Your task to perform on an android device: open app "The Home Depot" (install if not already installed) Image 0: 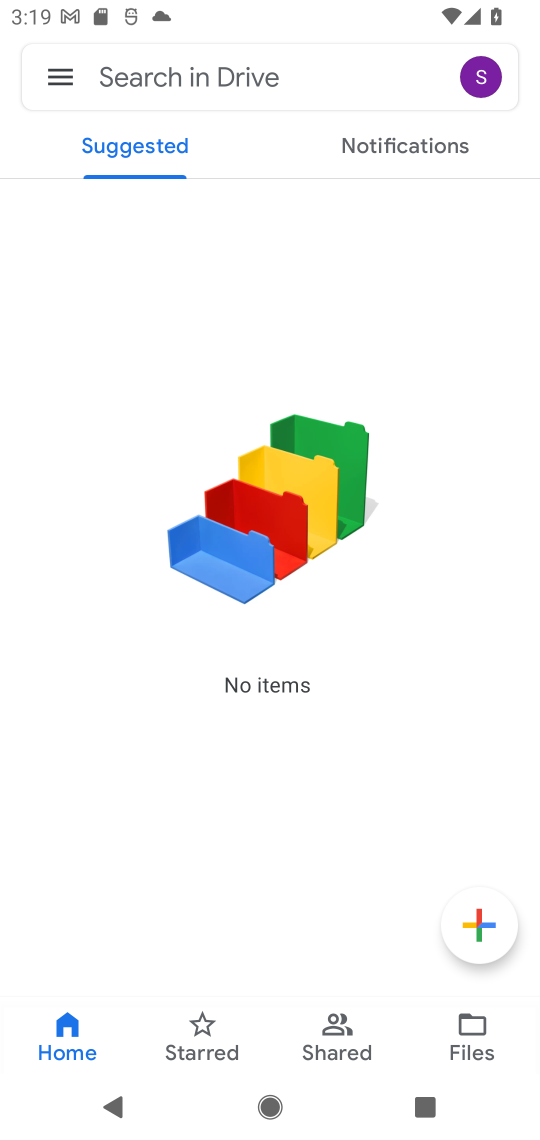
Step 0: press home button
Your task to perform on an android device: open app "The Home Depot" (install if not already installed) Image 1: 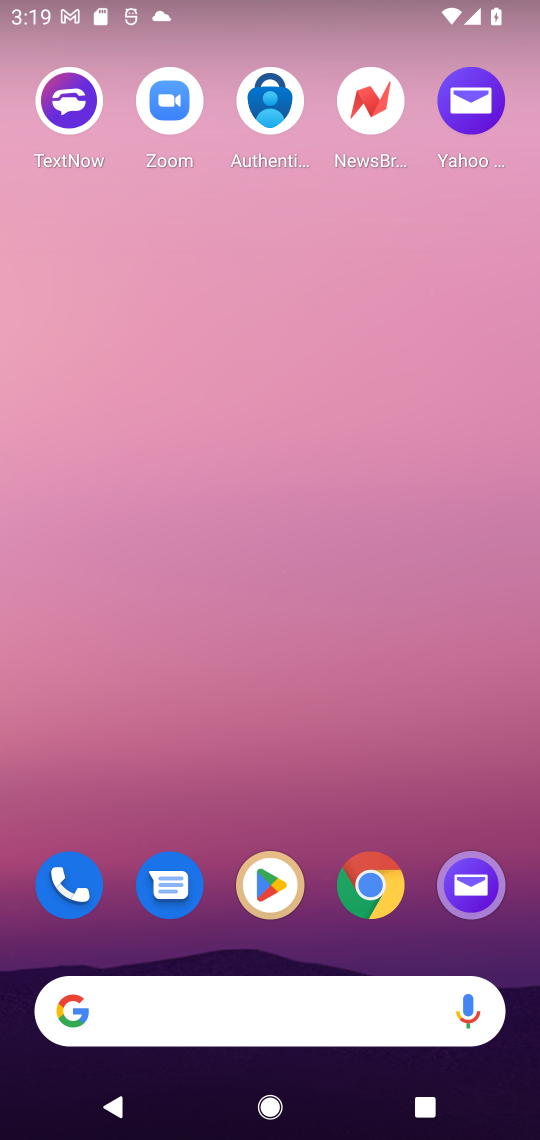
Step 1: click (271, 884)
Your task to perform on an android device: open app "The Home Depot" (install if not already installed) Image 2: 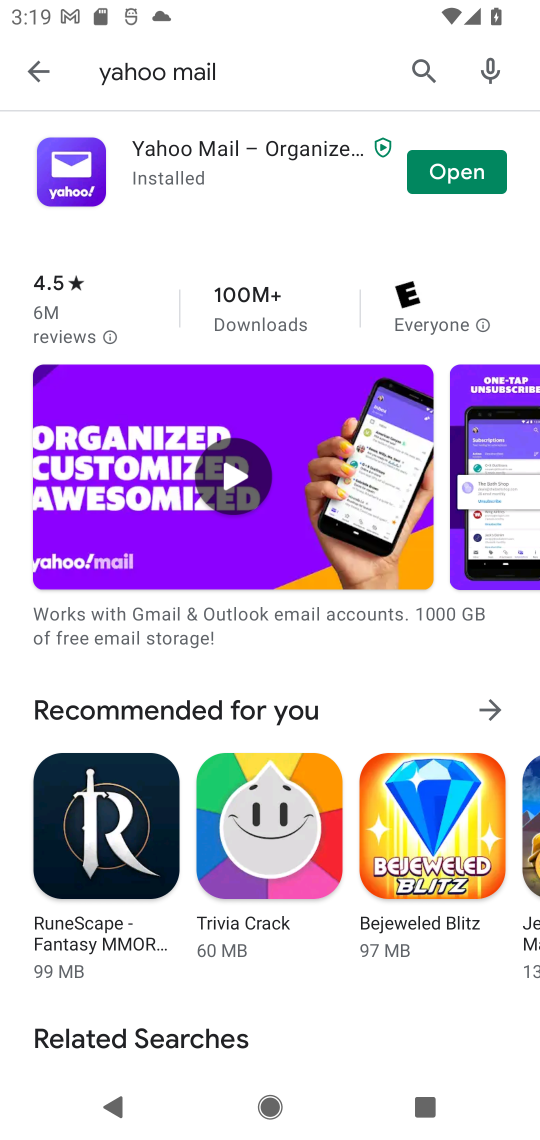
Step 2: click (417, 68)
Your task to perform on an android device: open app "The Home Depot" (install if not already installed) Image 3: 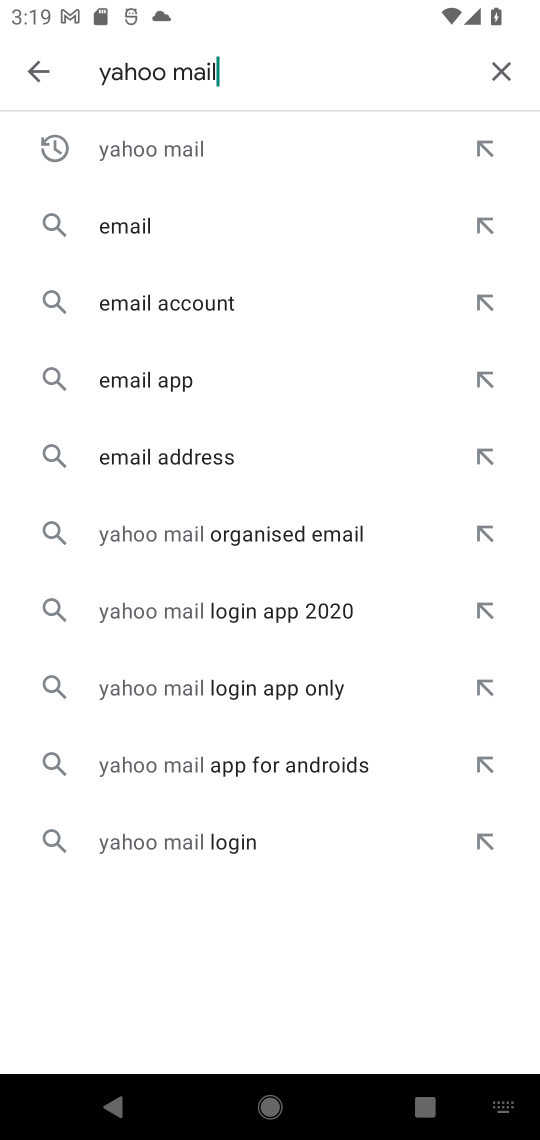
Step 3: click (511, 75)
Your task to perform on an android device: open app "The Home Depot" (install if not already installed) Image 4: 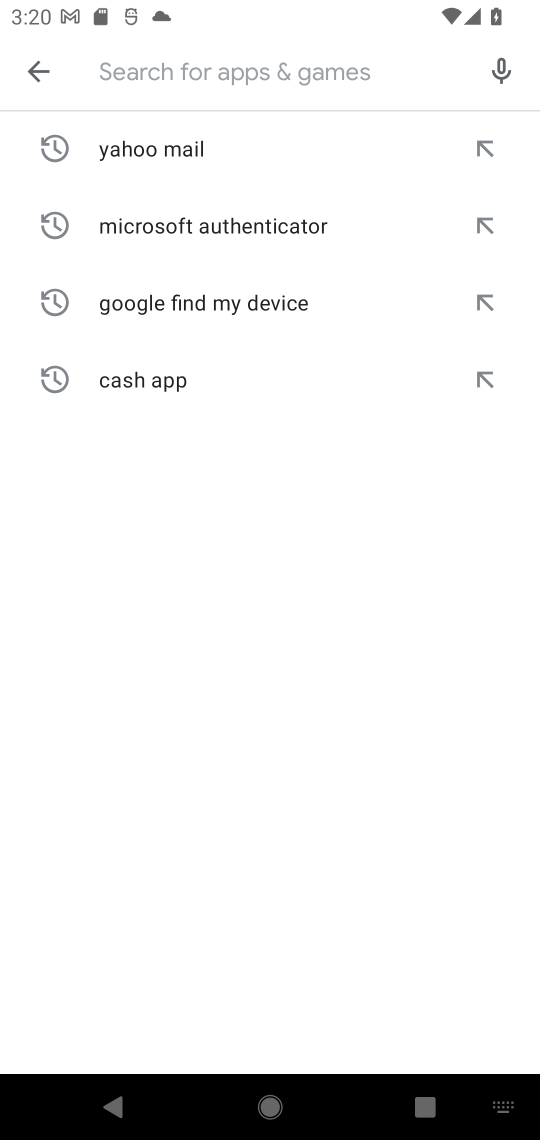
Step 4: type "The Home Depot"
Your task to perform on an android device: open app "The Home Depot" (install if not already installed) Image 5: 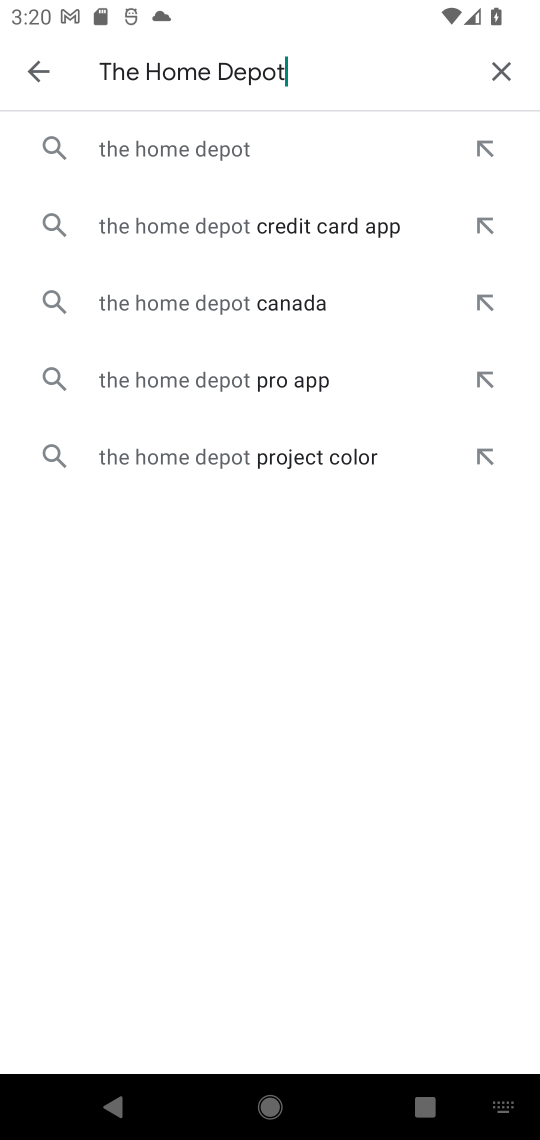
Step 5: click (255, 144)
Your task to perform on an android device: open app "The Home Depot" (install if not already installed) Image 6: 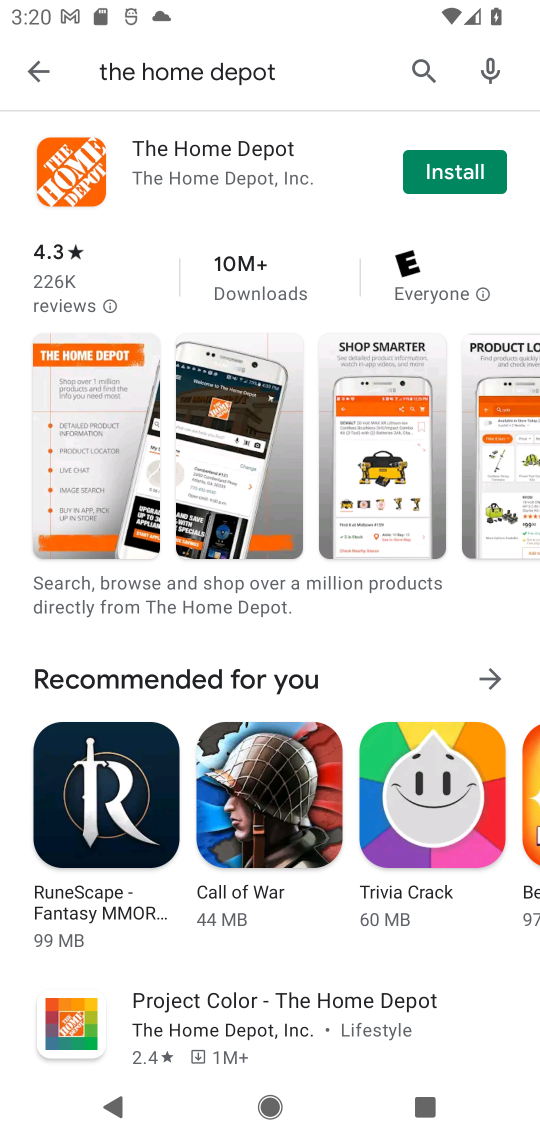
Step 6: click (466, 160)
Your task to perform on an android device: open app "The Home Depot" (install if not already installed) Image 7: 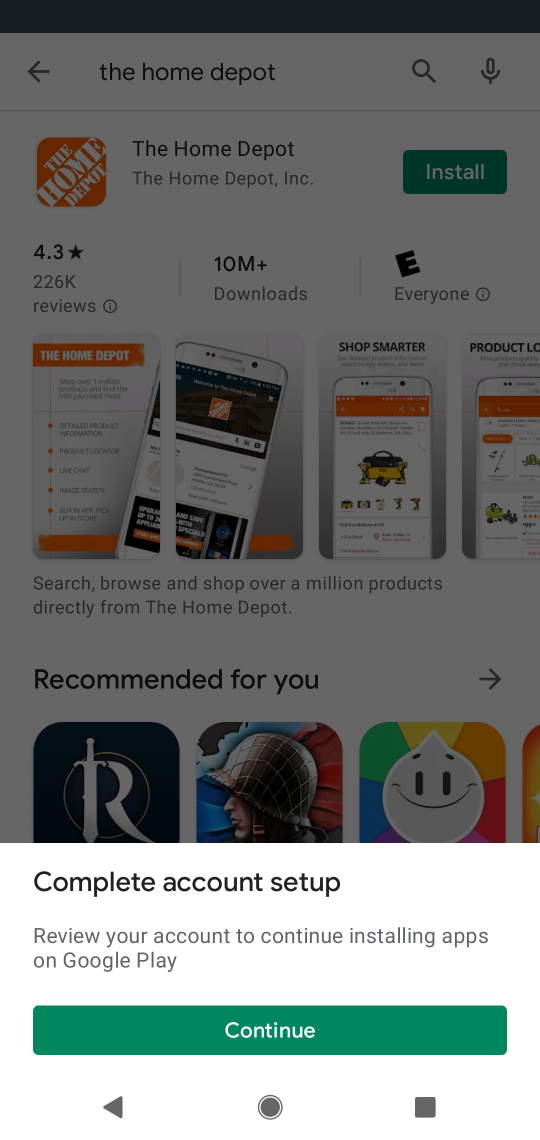
Step 7: click (272, 1029)
Your task to perform on an android device: open app "The Home Depot" (install if not already installed) Image 8: 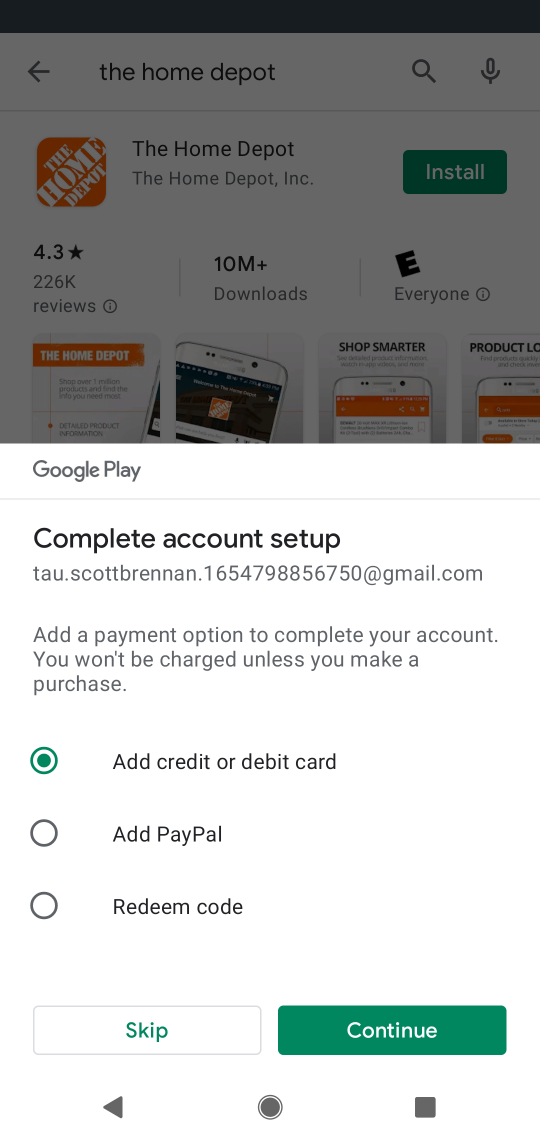
Step 8: click (162, 1022)
Your task to perform on an android device: open app "The Home Depot" (install if not already installed) Image 9: 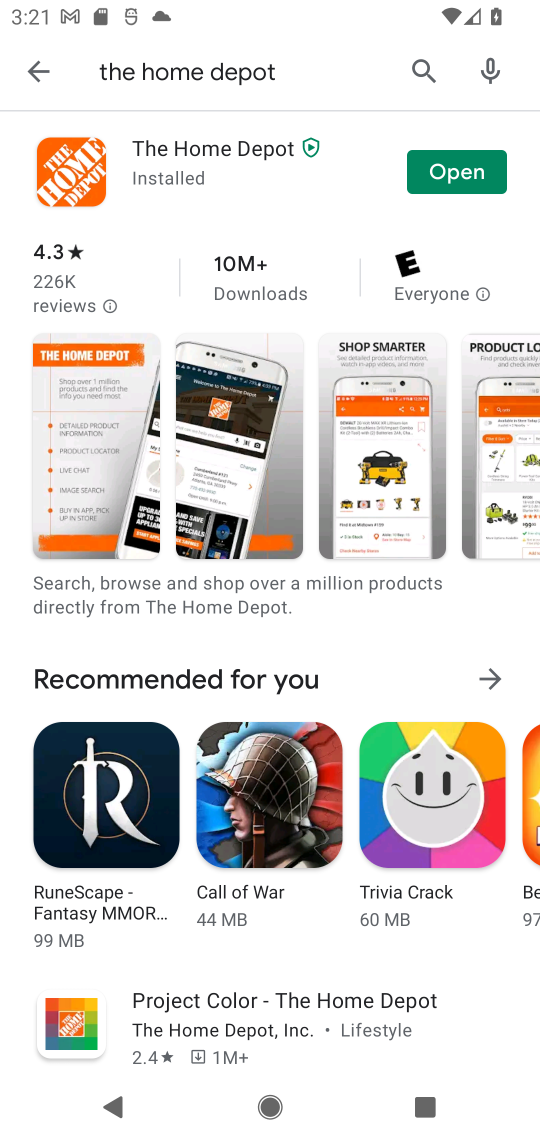
Step 9: click (462, 154)
Your task to perform on an android device: open app "The Home Depot" (install if not already installed) Image 10: 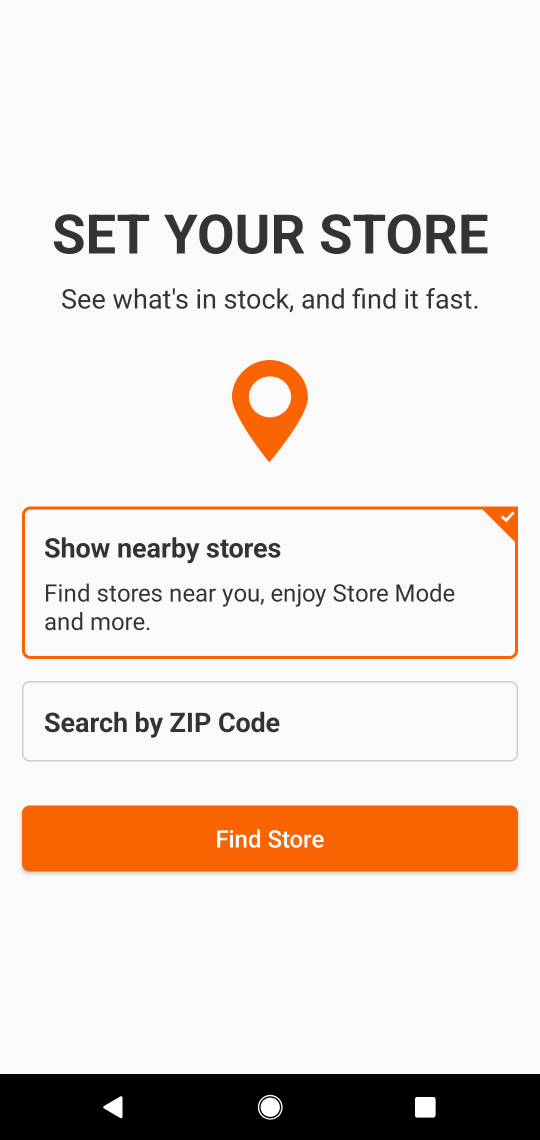
Step 10: click (254, 853)
Your task to perform on an android device: open app "The Home Depot" (install if not already installed) Image 11: 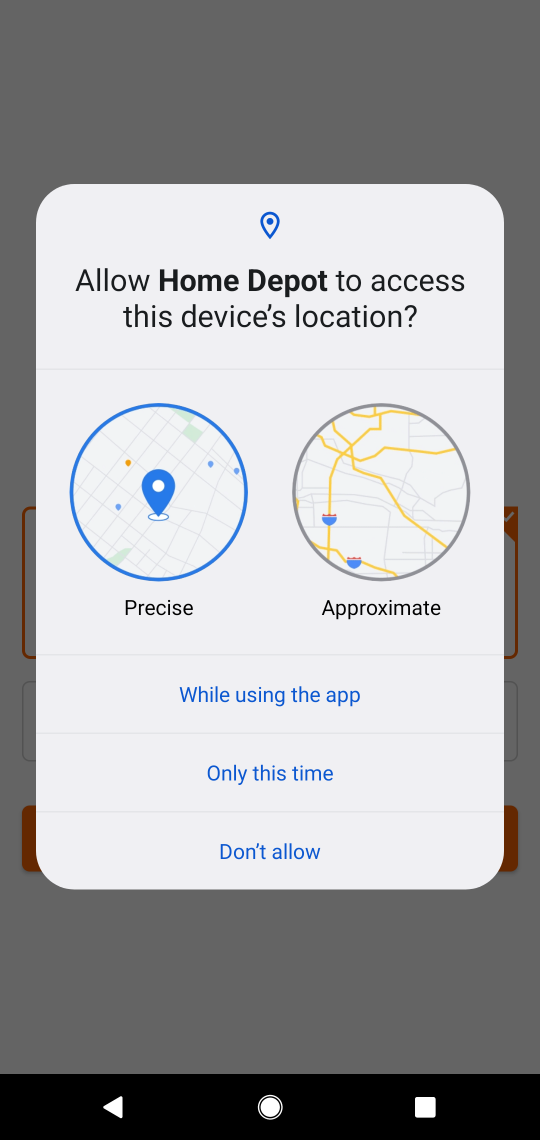
Step 11: click (268, 670)
Your task to perform on an android device: open app "The Home Depot" (install if not already installed) Image 12: 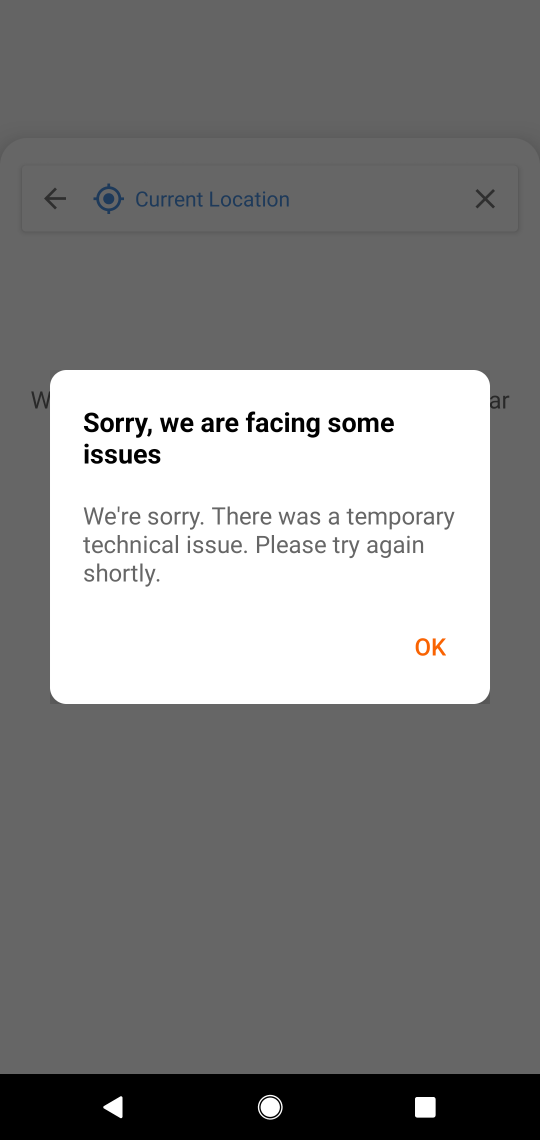
Step 12: click (427, 649)
Your task to perform on an android device: open app "The Home Depot" (install if not already installed) Image 13: 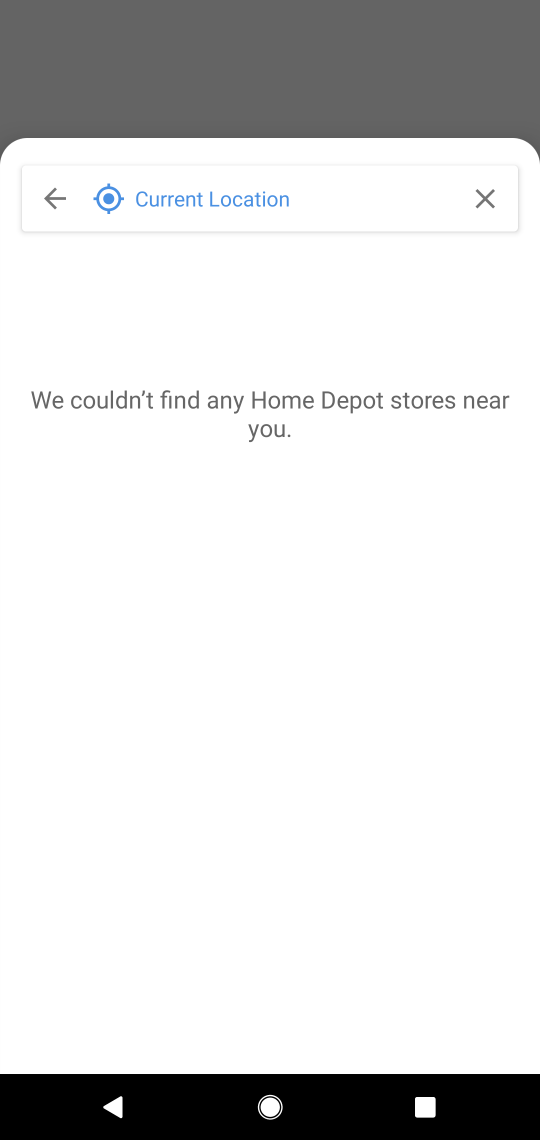
Step 13: click (198, 210)
Your task to perform on an android device: open app "The Home Depot" (install if not already installed) Image 14: 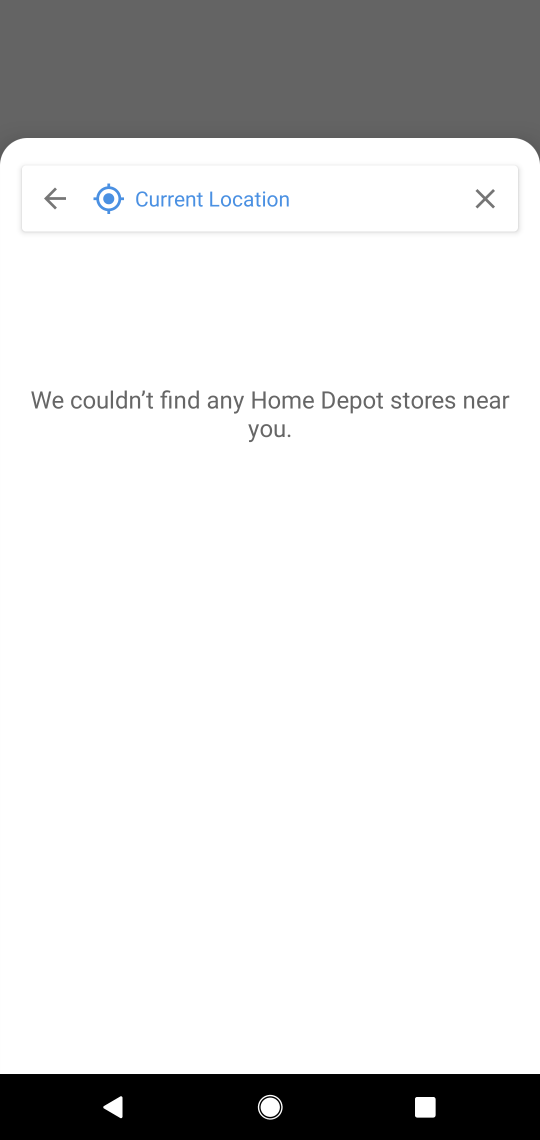
Step 14: click (177, 197)
Your task to perform on an android device: open app "The Home Depot" (install if not already installed) Image 15: 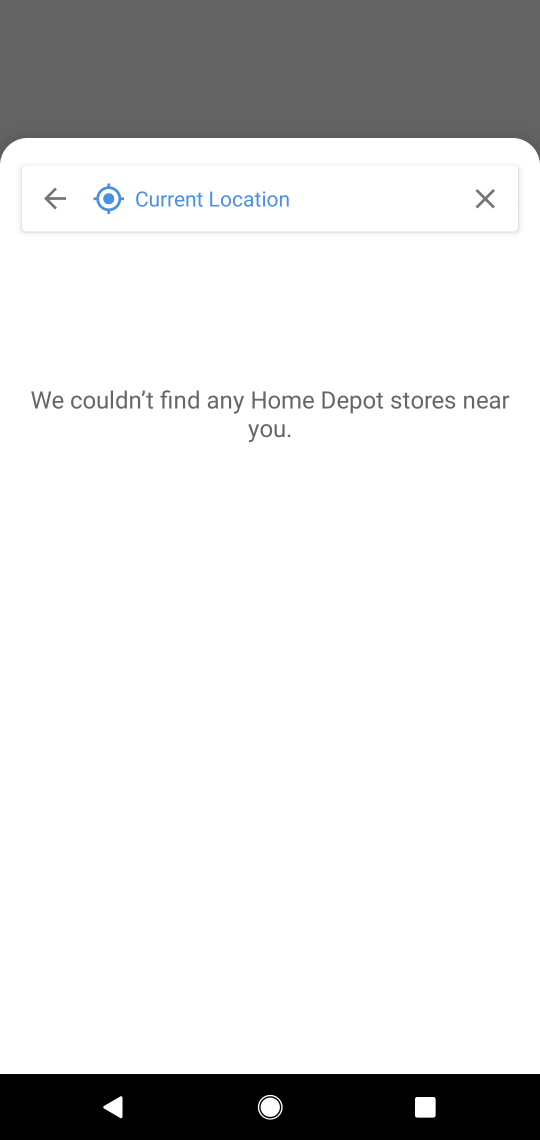
Step 15: task complete